Your task to perform on an android device: Open the Play Movies app and select the watchlist tab. Image 0: 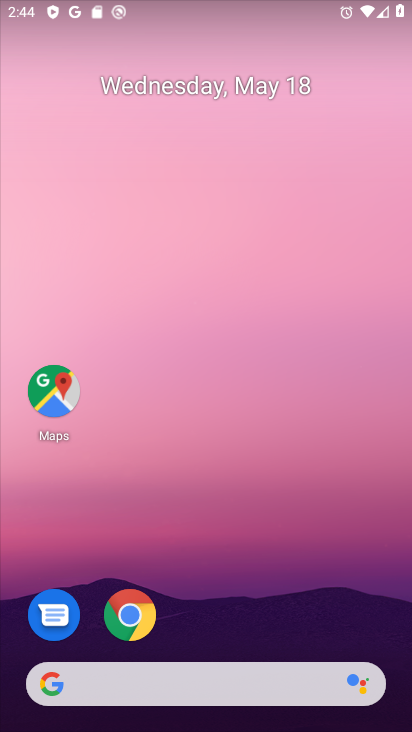
Step 0: drag from (209, 632) to (222, 282)
Your task to perform on an android device: Open the Play Movies app and select the watchlist tab. Image 1: 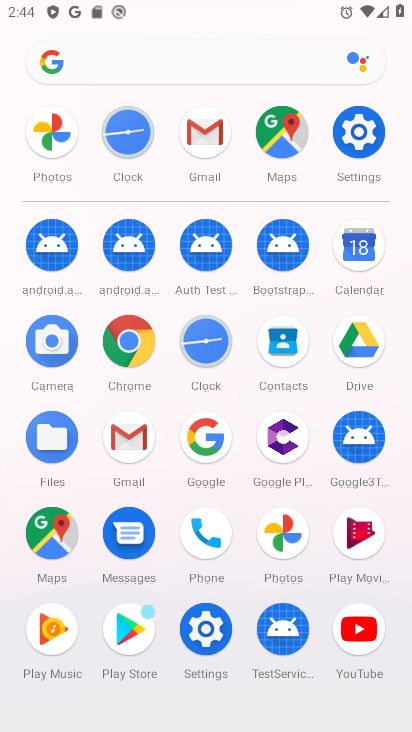
Step 1: click (351, 533)
Your task to perform on an android device: Open the Play Movies app and select the watchlist tab. Image 2: 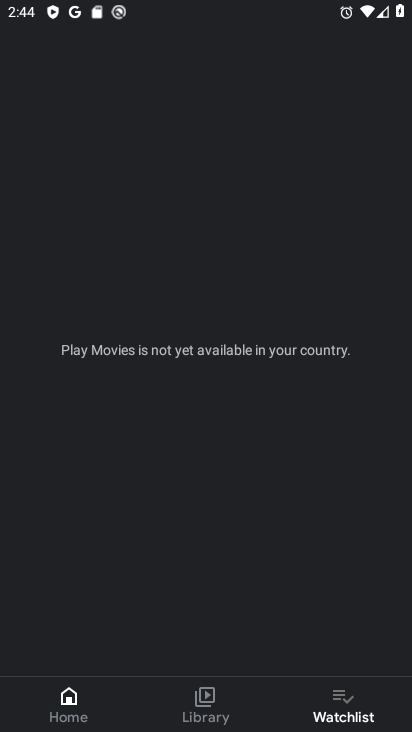
Step 2: click (354, 701)
Your task to perform on an android device: Open the Play Movies app and select the watchlist tab. Image 3: 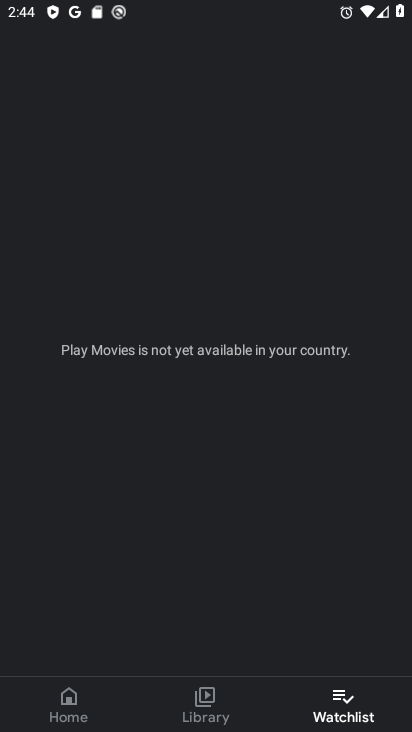
Step 3: task complete